Your task to perform on an android device: open chrome and create a bookmark for the current page Image 0: 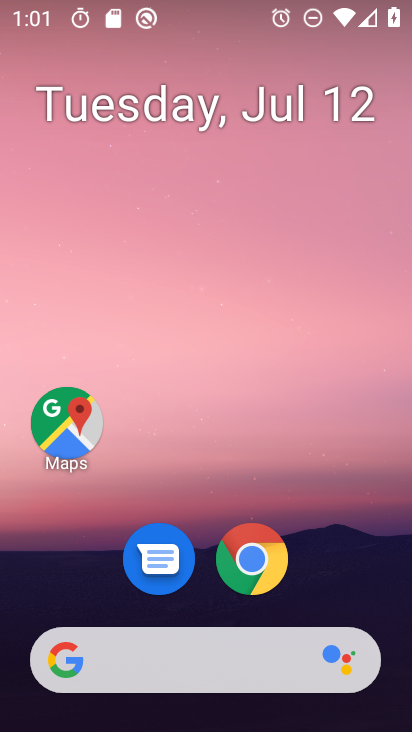
Step 0: click (271, 557)
Your task to perform on an android device: open chrome and create a bookmark for the current page Image 1: 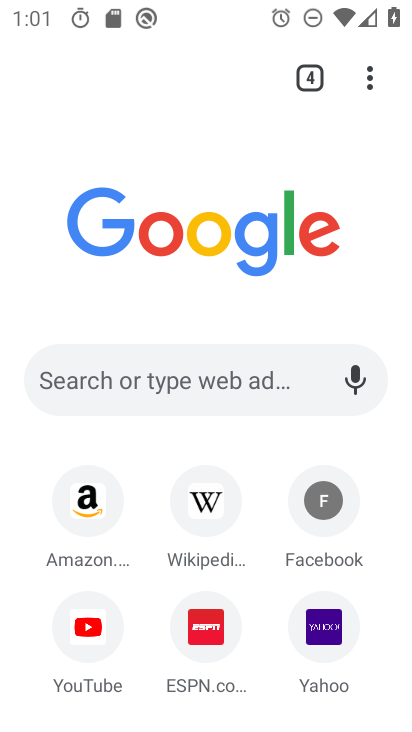
Step 1: task complete